Your task to perform on an android device: choose inbox layout in the gmail app Image 0: 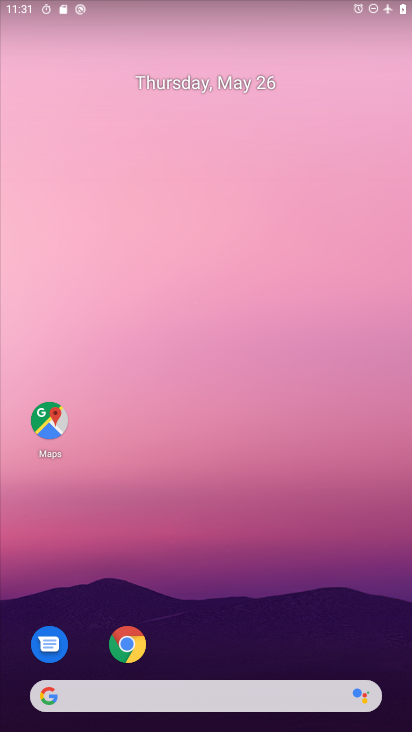
Step 0: drag from (368, 627) to (357, 195)
Your task to perform on an android device: choose inbox layout in the gmail app Image 1: 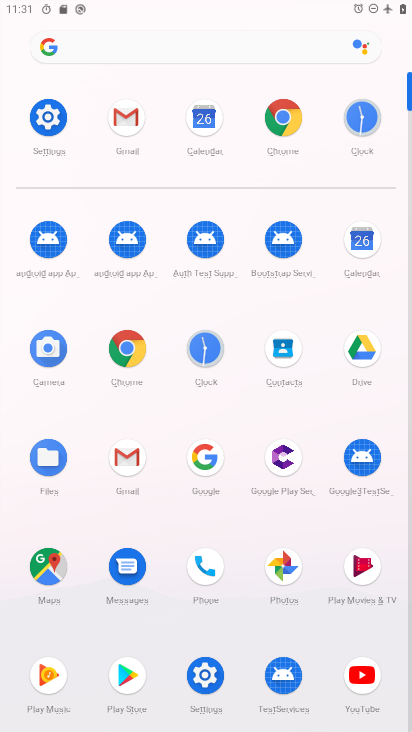
Step 1: click (128, 126)
Your task to perform on an android device: choose inbox layout in the gmail app Image 2: 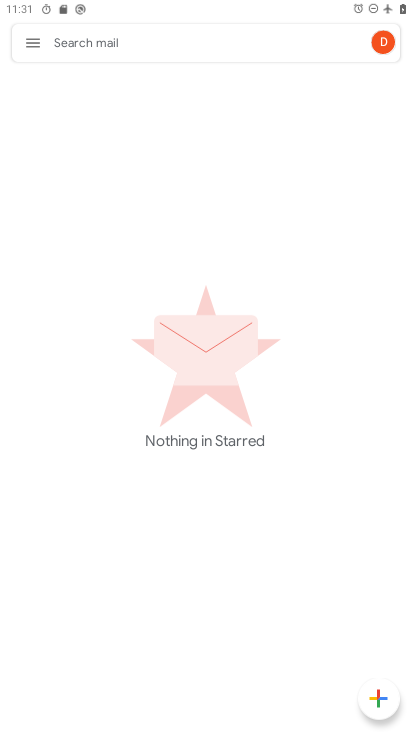
Step 2: click (28, 40)
Your task to perform on an android device: choose inbox layout in the gmail app Image 3: 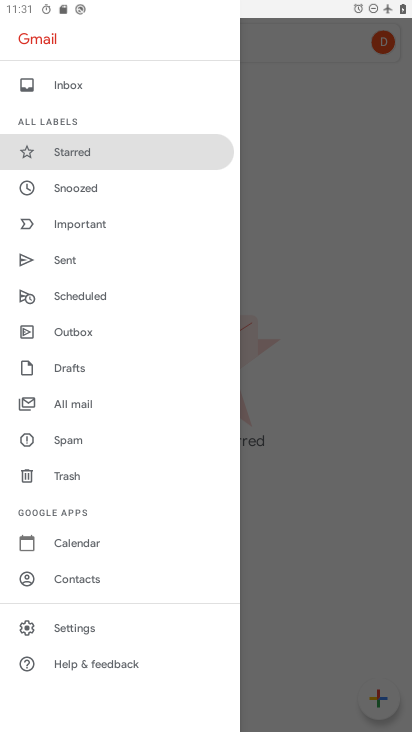
Step 3: click (100, 635)
Your task to perform on an android device: choose inbox layout in the gmail app Image 4: 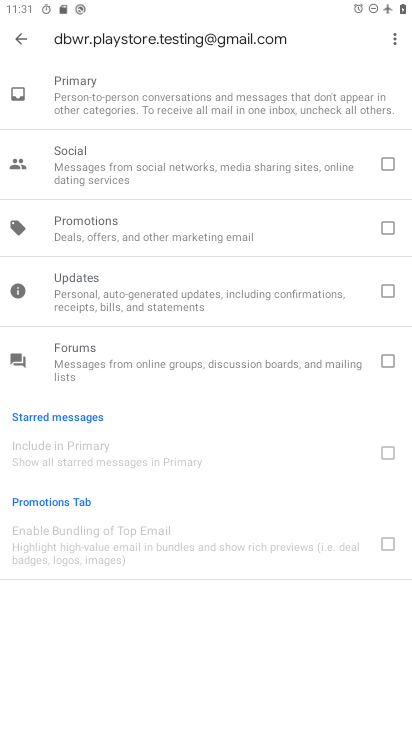
Step 4: drag from (262, 203) to (264, 306)
Your task to perform on an android device: choose inbox layout in the gmail app Image 5: 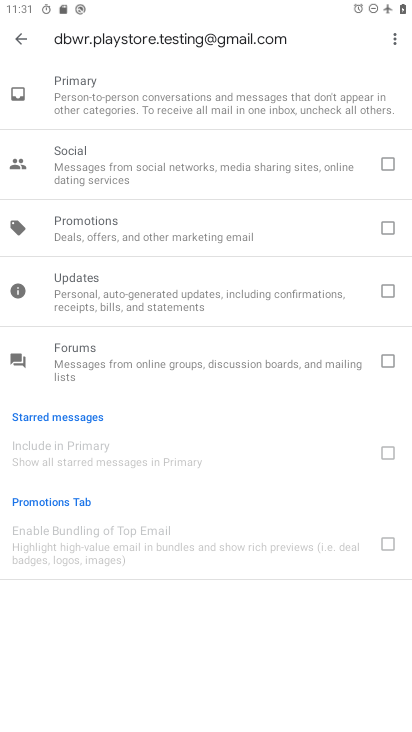
Step 5: click (19, 34)
Your task to perform on an android device: choose inbox layout in the gmail app Image 6: 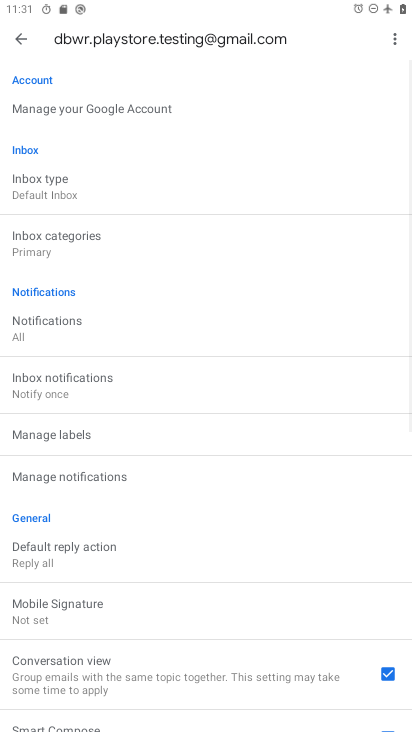
Step 6: drag from (274, 160) to (276, 308)
Your task to perform on an android device: choose inbox layout in the gmail app Image 7: 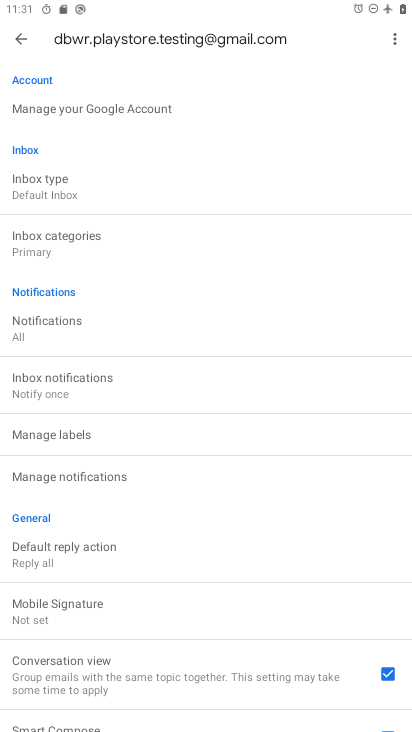
Step 7: click (47, 189)
Your task to perform on an android device: choose inbox layout in the gmail app Image 8: 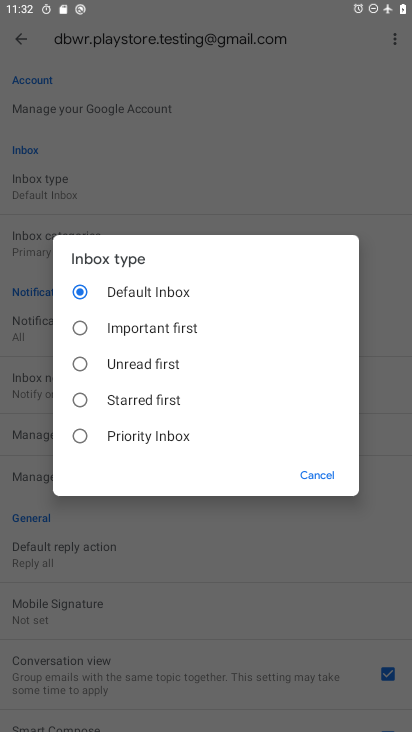
Step 8: click (76, 364)
Your task to perform on an android device: choose inbox layout in the gmail app Image 9: 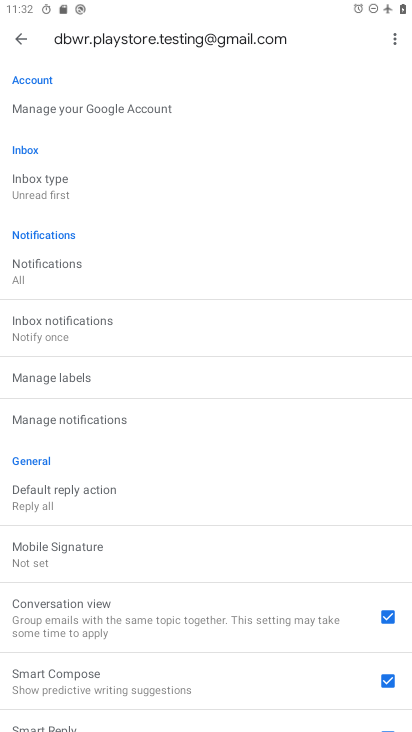
Step 9: task complete